Your task to perform on an android device: Go to eBay Image 0: 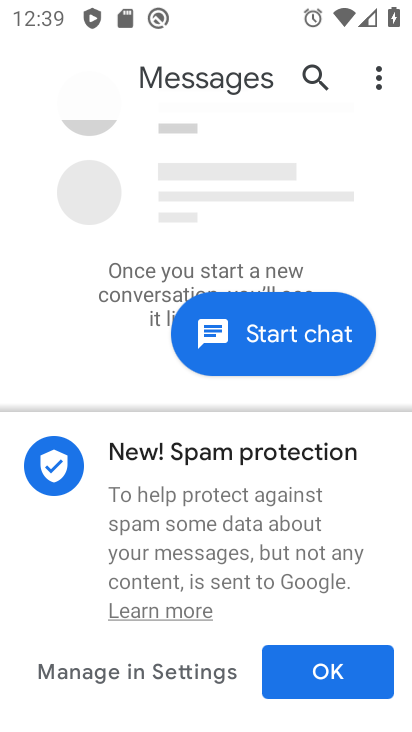
Step 0: drag from (116, 341) to (188, 62)
Your task to perform on an android device: Go to eBay Image 1: 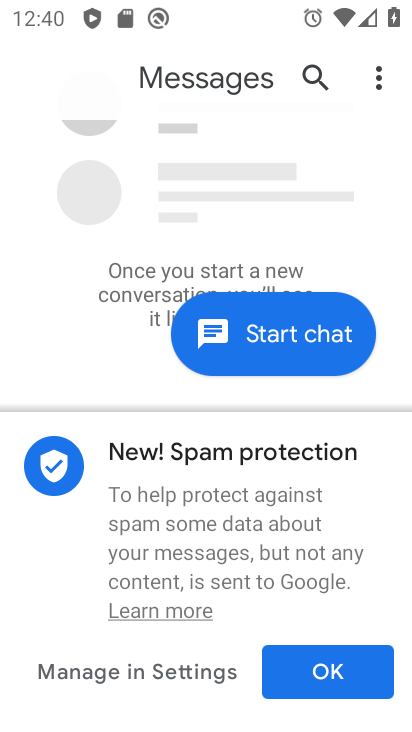
Step 1: press back button
Your task to perform on an android device: Go to eBay Image 2: 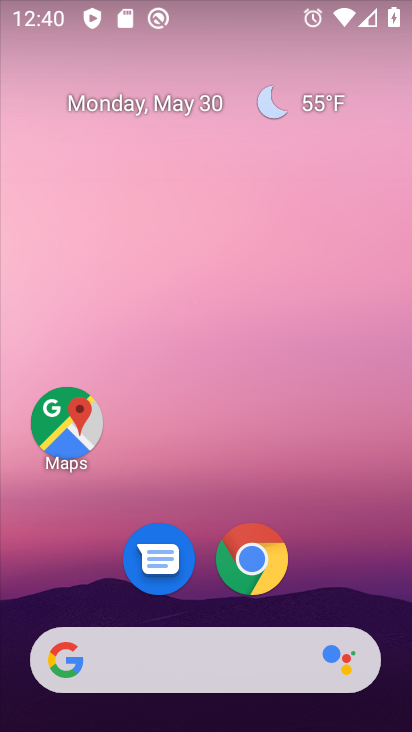
Step 2: click (252, 560)
Your task to perform on an android device: Go to eBay Image 3: 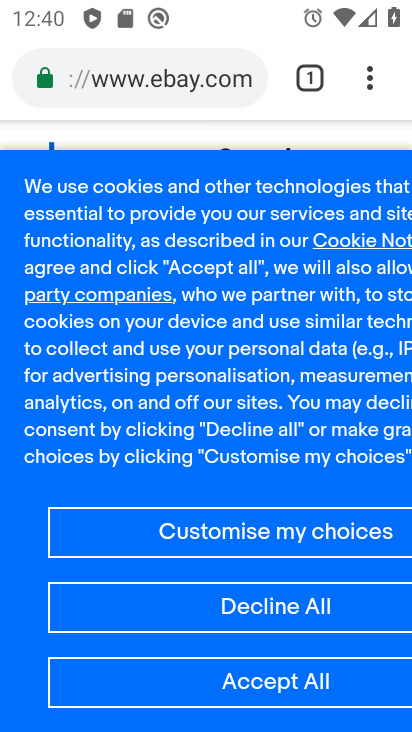
Step 3: task complete